Your task to perform on an android device: change your default location settings in chrome Image 0: 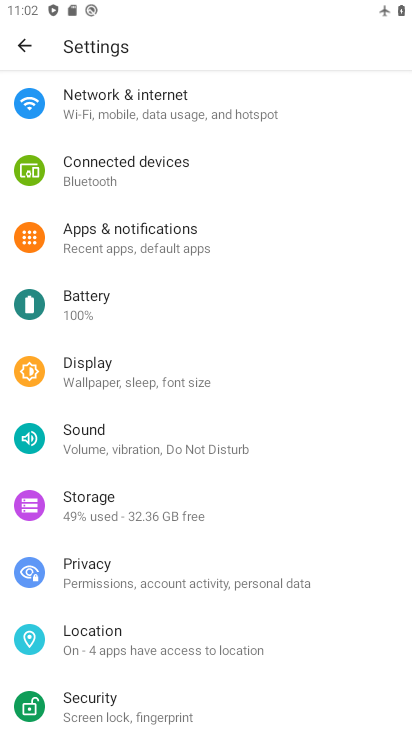
Step 0: press home button
Your task to perform on an android device: change your default location settings in chrome Image 1: 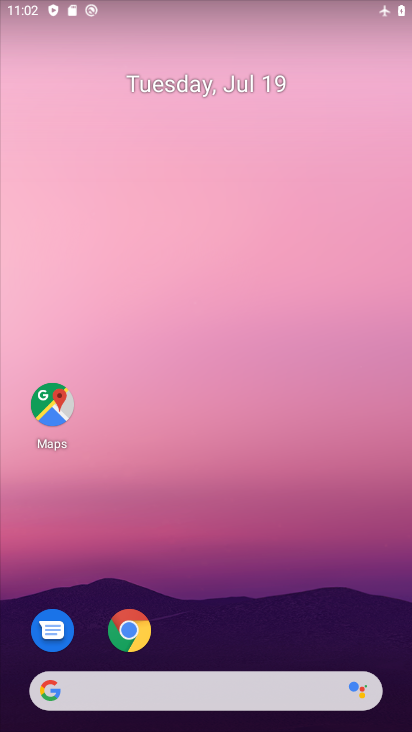
Step 1: click (134, 625)
Your task to perform on an android device: change your default location settings in chrome Image 2: 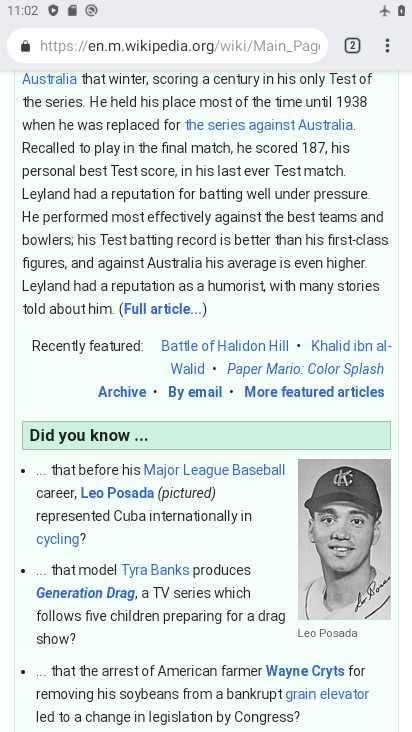
Step 2: click (385, 42)
Your task to perform on an android device: change your default location settings in chrome Image 3: 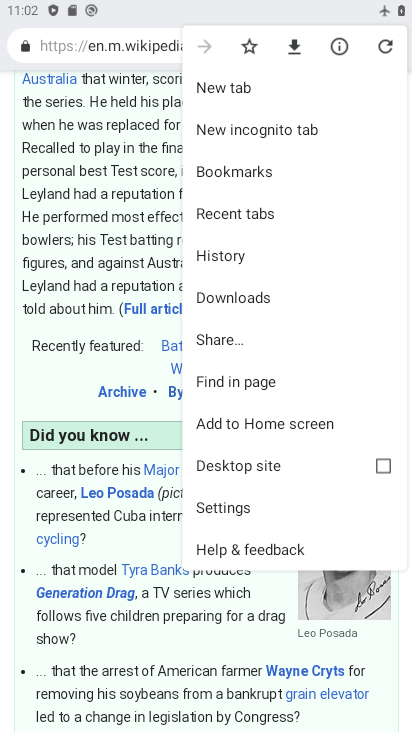
Step 3: click (226, 502)
Your task to perform on an android device: change your default location settings in chrome Image 4: 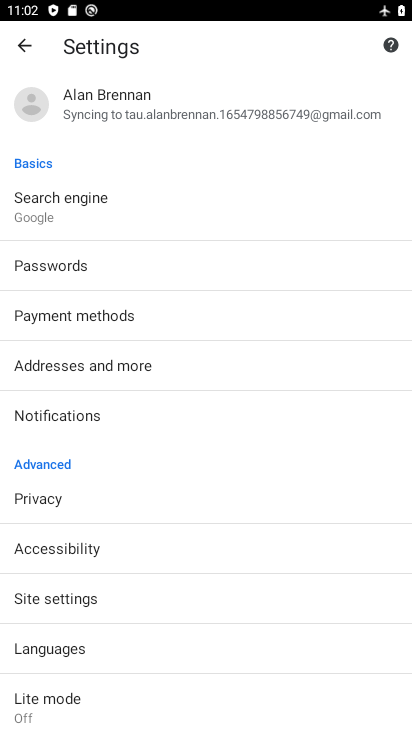
Step 4: click (46, 598)
Your task to perform on an android device: change your default location settings in chrome Image 5: 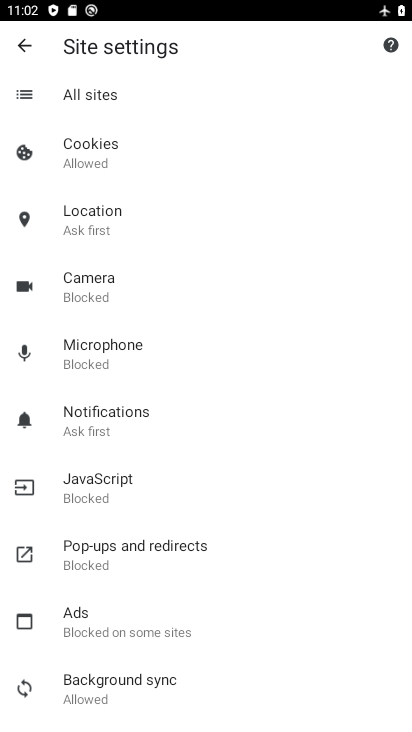
Step 5: click (115, 209)
Your task to perform on an android device: change your default location settings in chrome Image 6: 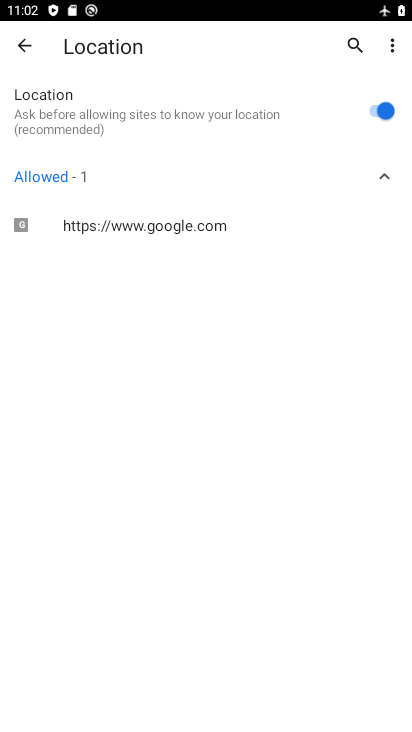
Step 6: click (369, 110)
Your task to perform on an android device: change your default location settings in chrome Image 7: 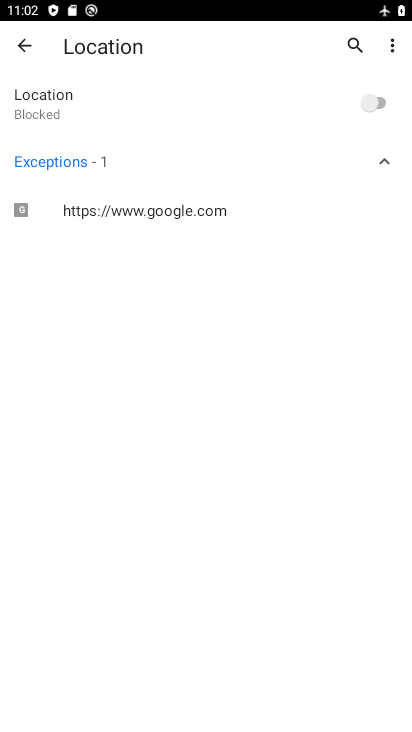
Step 7: task complete